Your task to perform on an android device: Open the calendar and show me this week's events Image 0: 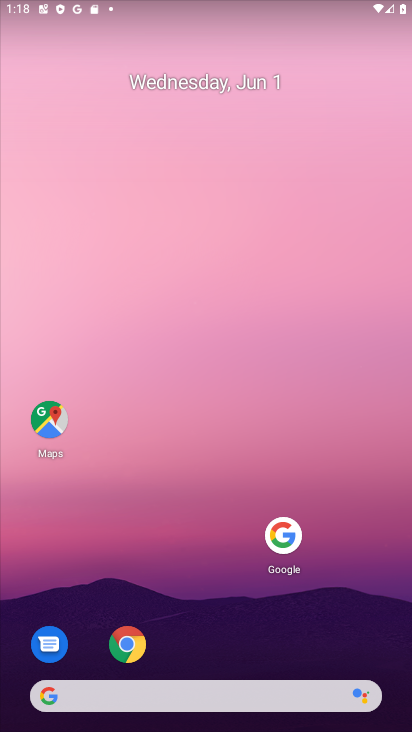
Step 0: drag from (174, 697) to (350, 21)
Your task to perform on an android device: Open the calendar and show me this week's events Image 1: 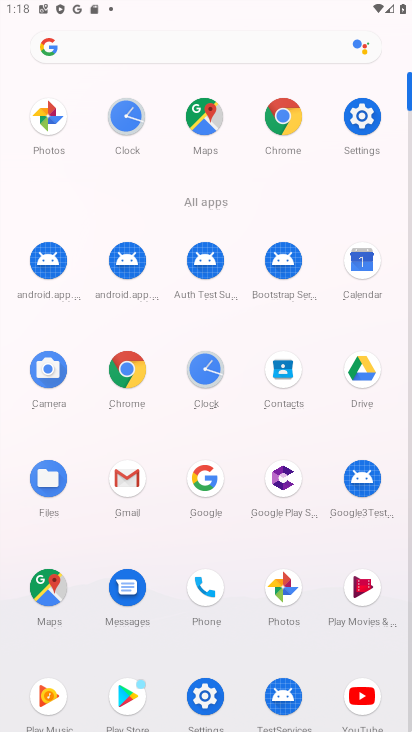
Step 1: click (364, 262)
Your task to perform on an android device: Open the calendar and show me this week's events Image 2: 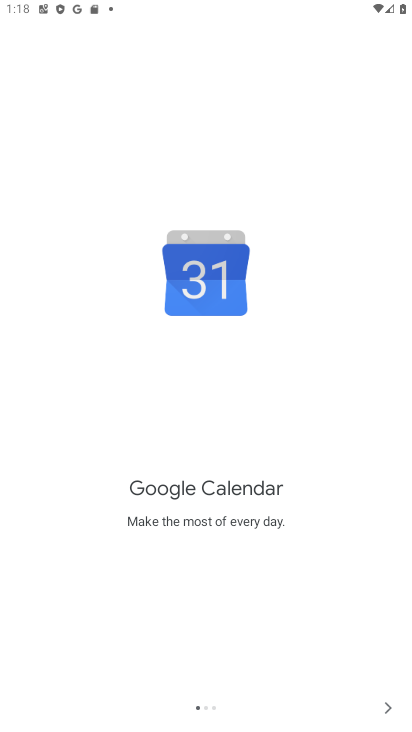
Step 2: click (384, 703)
Your task to perform on an android device: Open the calendar and show me this week's events Image 3: 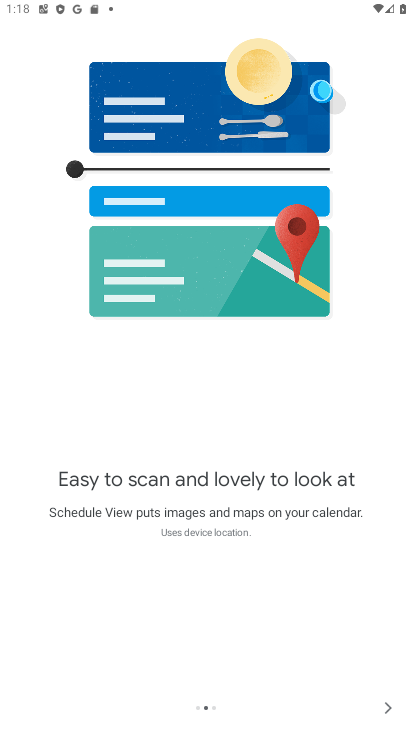
Step 3: click (384, 702)
Your task to perform on an android device: Open the calendar and show me this week's events Image 4: 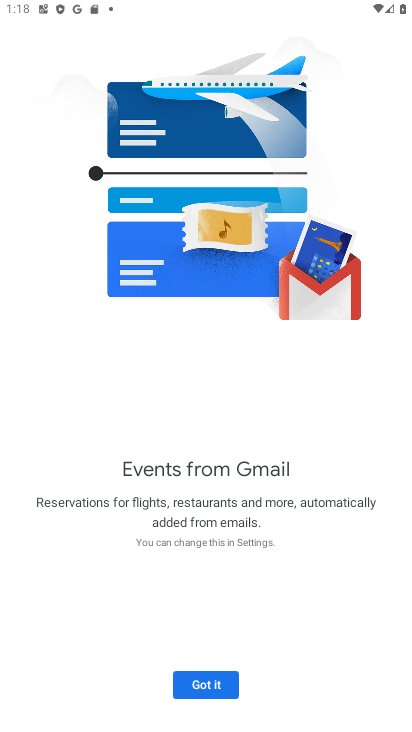
Step 4: click (195, 687)
Your task to perform on an android device: Open the calendar and show me this week's events Image 5: 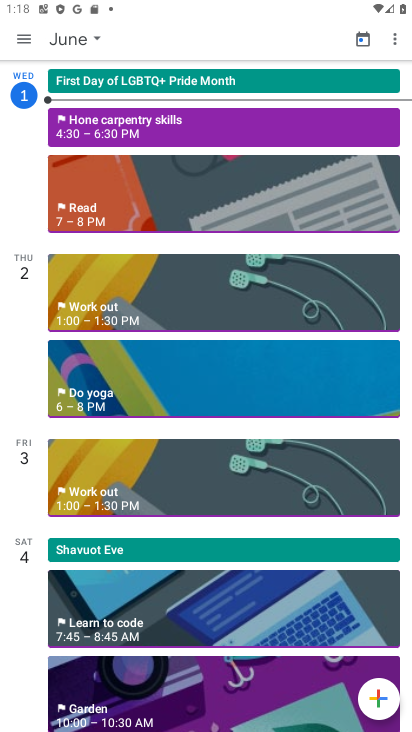
Step 5: click (166, 123)
Your task to perform on an android device: Open the calendar and show me this week's events Image 6: 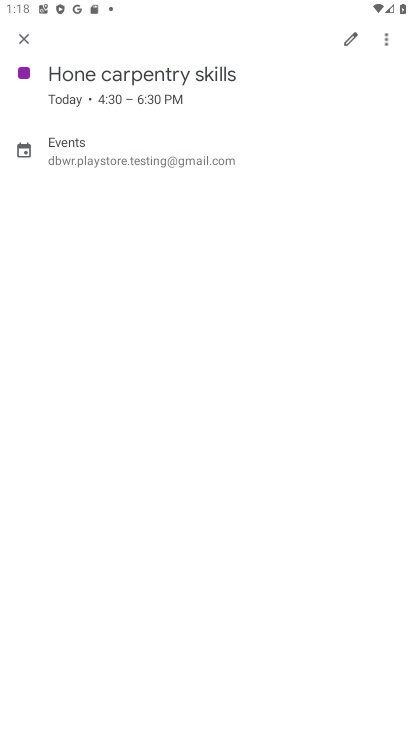
Step 6: task complete